Your task to perform on an android device: Do I have any events today? Image 0: 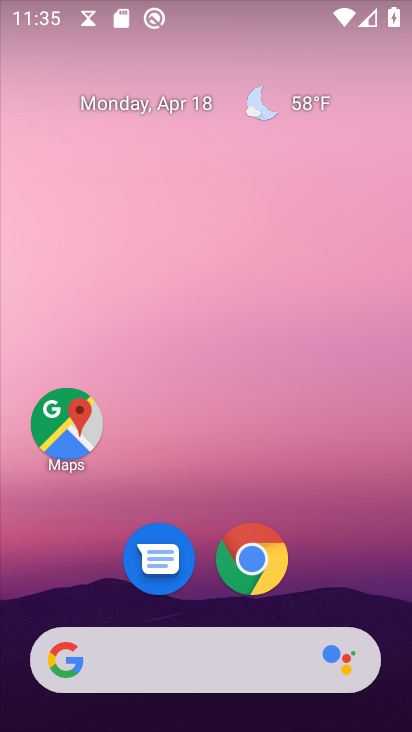
Step 0: drag from (349, 523) to (299, 94)
Your task to perform on an android device: Do I have any events today? Image 1: 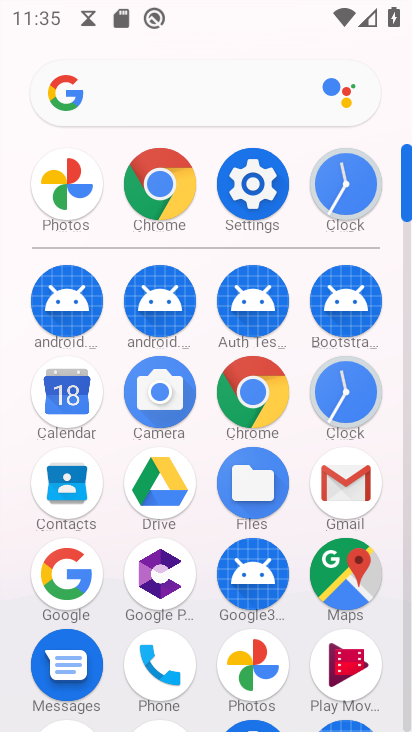
Step 1: click (72, 409)
Your task to perform on an android device: Do I have any events today? Image 2: 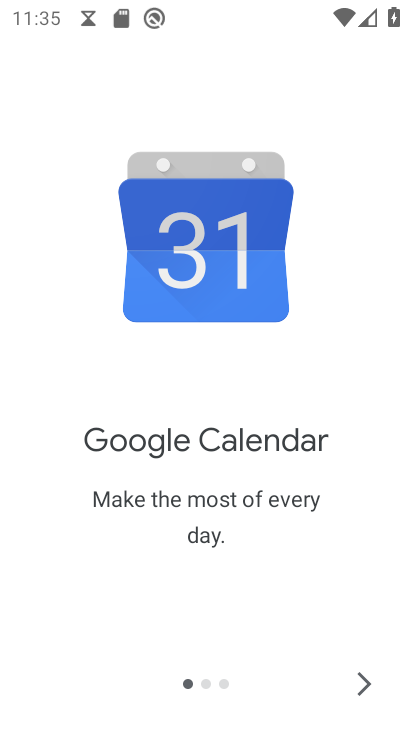
Step 2: click (363, 676)
Your task to perform on an android device: Do I have any events today? Image 3: 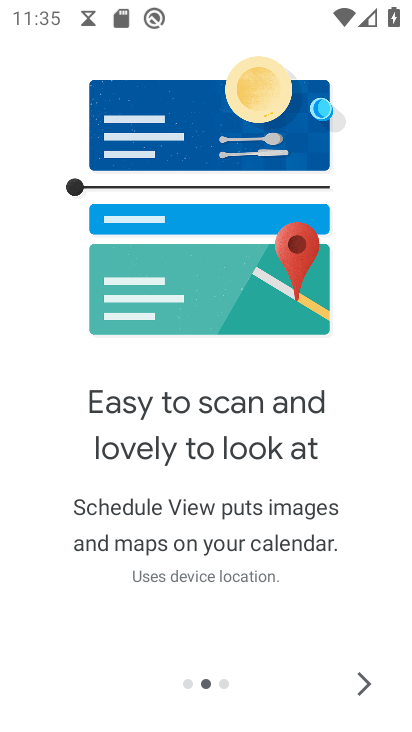
Step 3: click (363, 676)
Your task to perform on an android device: Do I have any events today? Image 4: 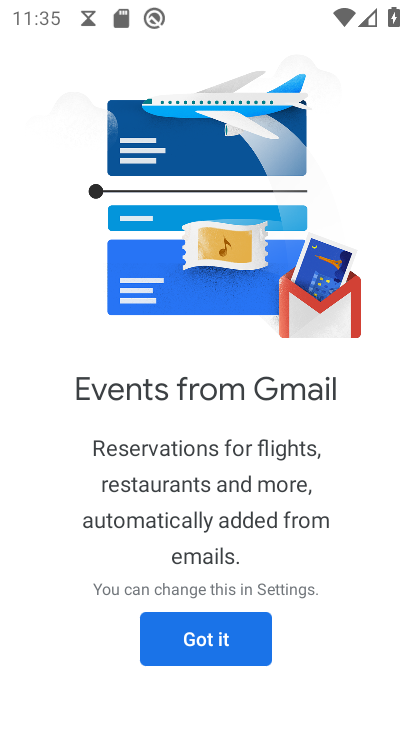
Step 4: click (363, 676)
Your task to perform on an android device: Do I have any events today? Image 5: 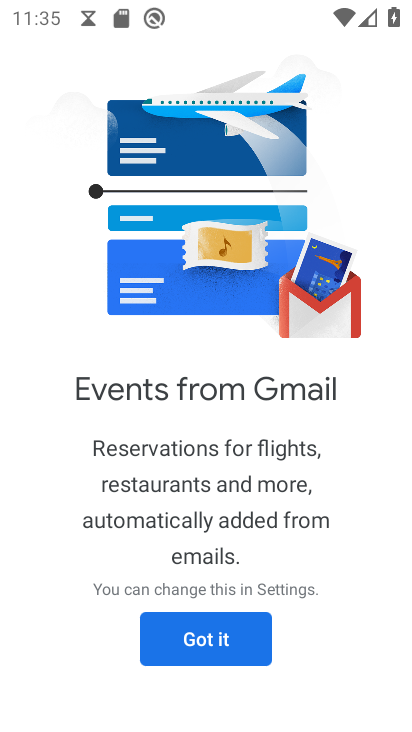
Step 5: click (203, 639)
Your task to perform on an android device: Do I have any events today? Image 6: 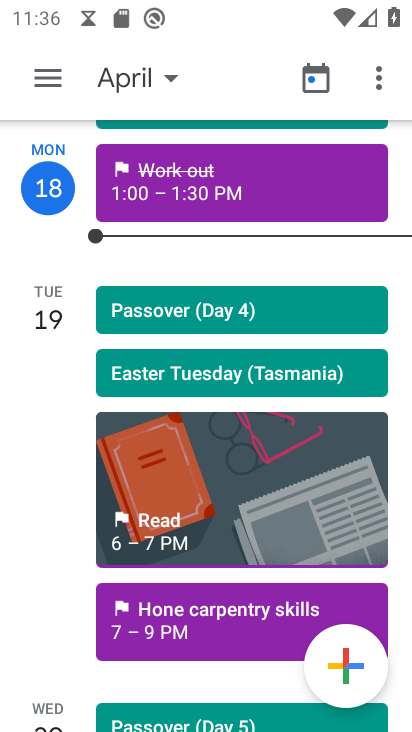
Step 6: task complete